Your task to perform on an android device: Show me the alarms in the clock app Image 0: 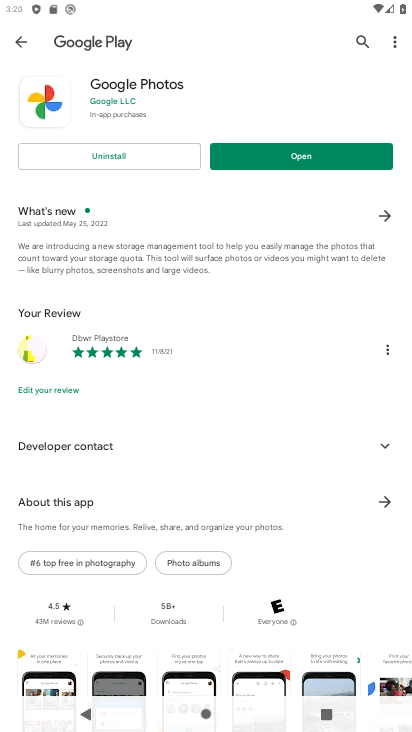
Step 0: press home button
Your task to perform on an android device: Show me the alarms in the clock app Image 1: 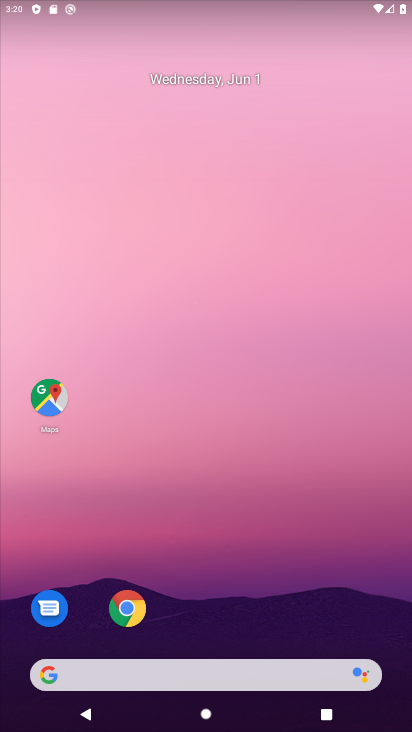
Step 1: drag from (220, 664) to (205, 163)
Your task to perform on an android device: Show me the alarms in the clock app Image 2: 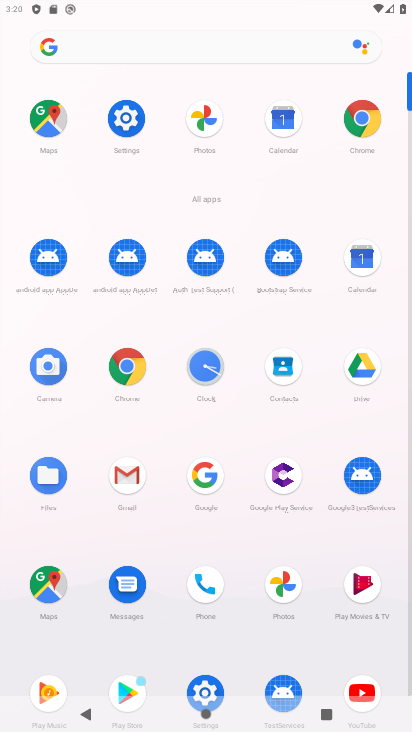
Step 2: click (199, 353)
Your task to perform on an android device: Show me the alarms in the clock app Image 3: 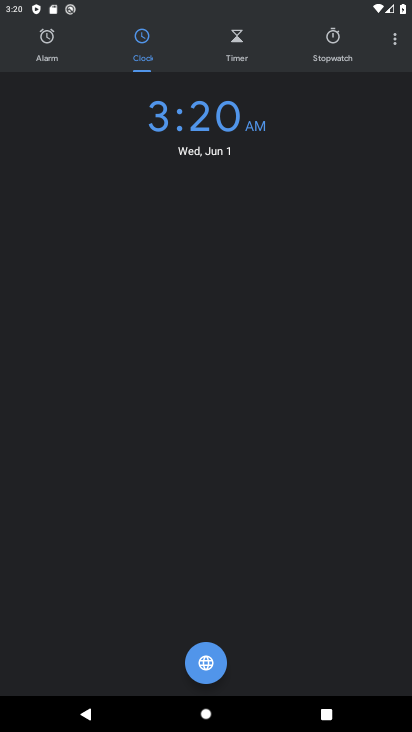
Step 3: click (53, 53)
Your task to perform on an android device: Show me the alarms in the clock app Image 4: 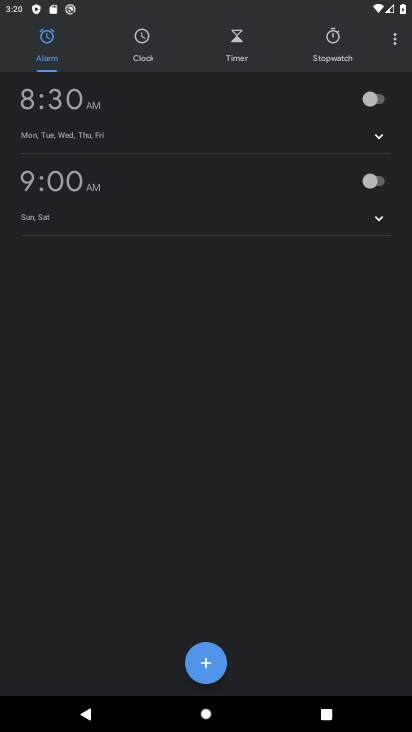
Step 4: task complete